Your task to perform on an android device: Go to Reddit.com Image 0: 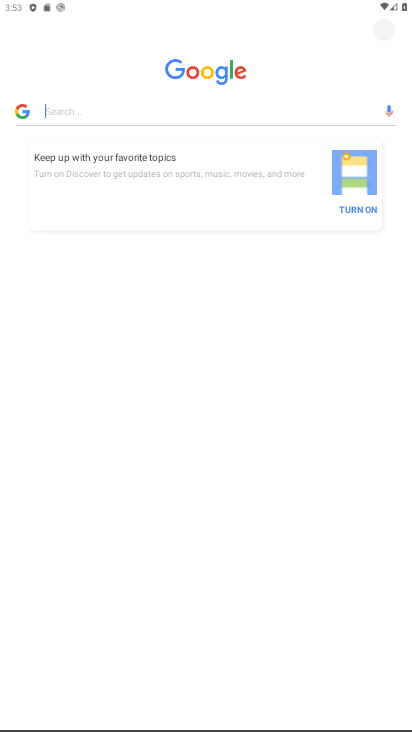
Step 0: press back button
Your task to perform on an android device: Go to Reddit.com Image 1: 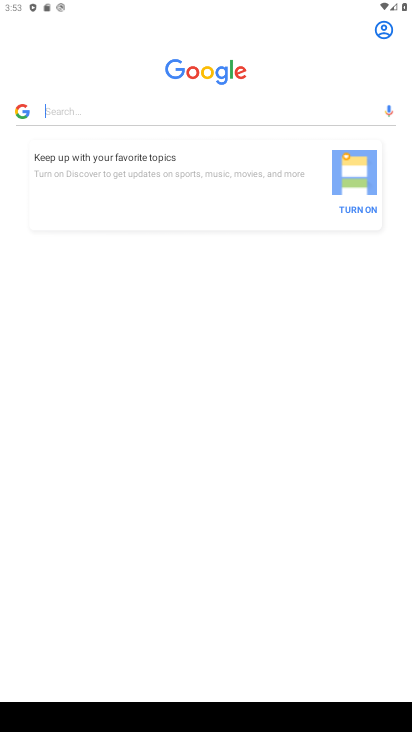
Step 1: press back button
Your task to perform on an android device: Go to Reddit.com Image 2: 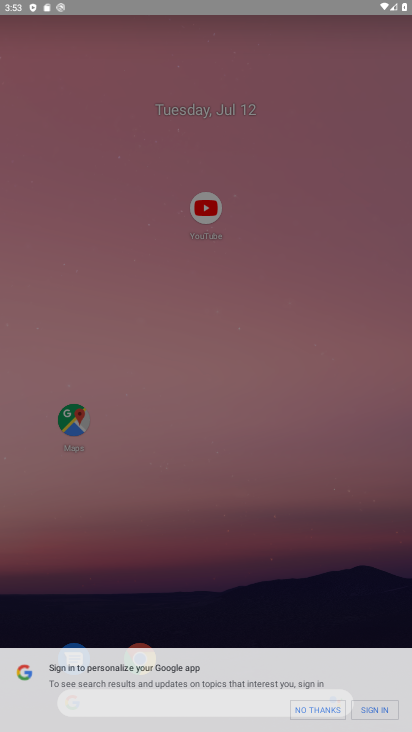
Step 2: press home button
Your task to perform on an android device: Go to Reddit.com Image 3: 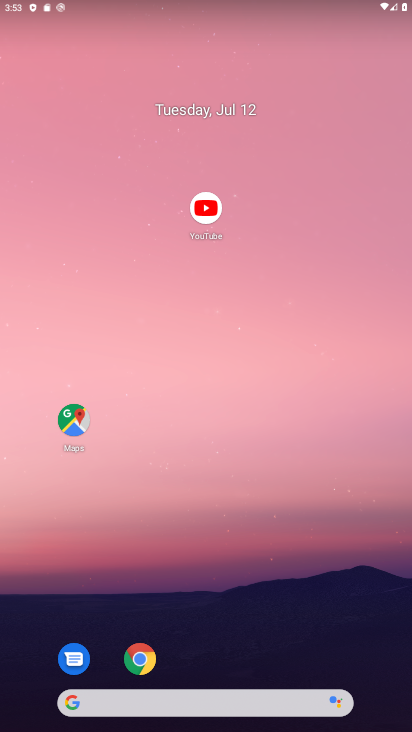
Step 3: press back button
Your task to perform on an android device: Go to Reddit.com Image 4: 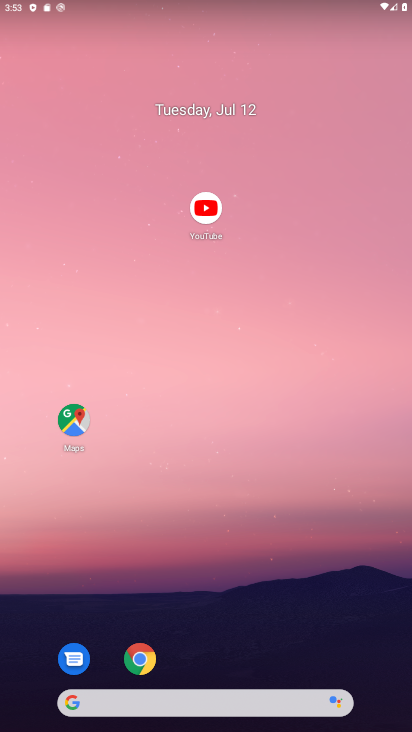
Step 4: drag from (258, 711) to (259, 153)
Your task to perform on an android device: Go to Reddit.com Image 5: 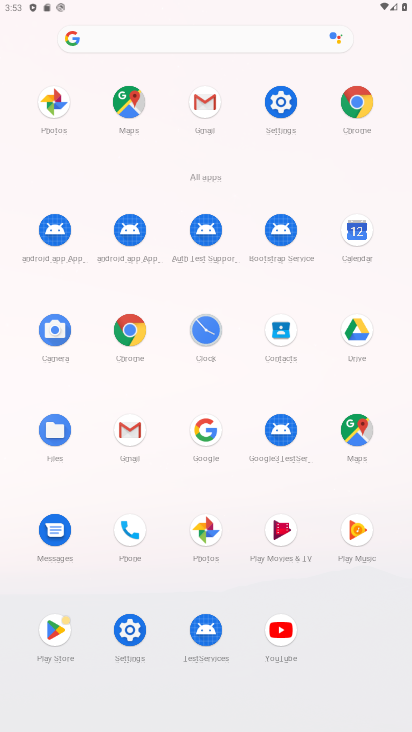
Step 5: click (365, 104)
Your task to perform on an android device: Go to Reddit.com Image 6: 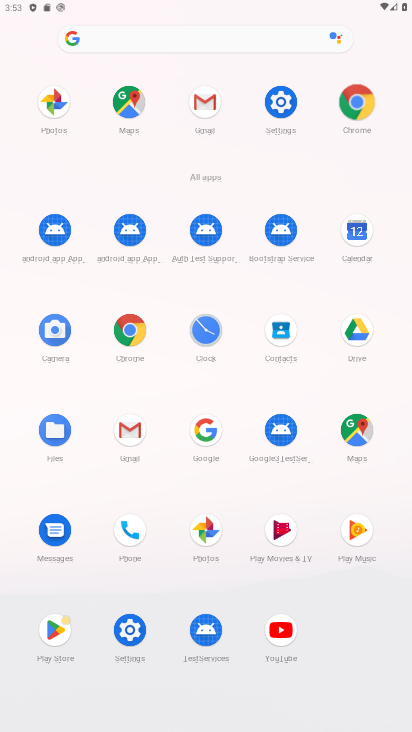
Step 6: click (355, 107)
Your task to perform on an android device: Go to Reddit.com Image 7: 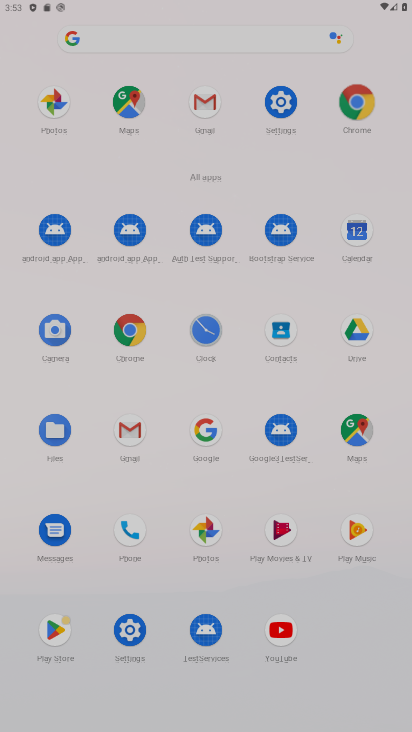
Step 7: click (355, 107)
Your task to perform on an android device: Go to Reddit.com Image 8: 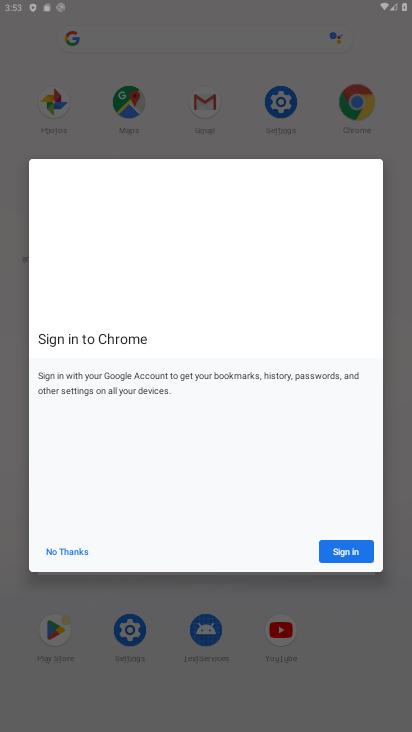
Step 8: click (355, 108)
Your task to perform on an android device: Go to Reddit.com Image 9: 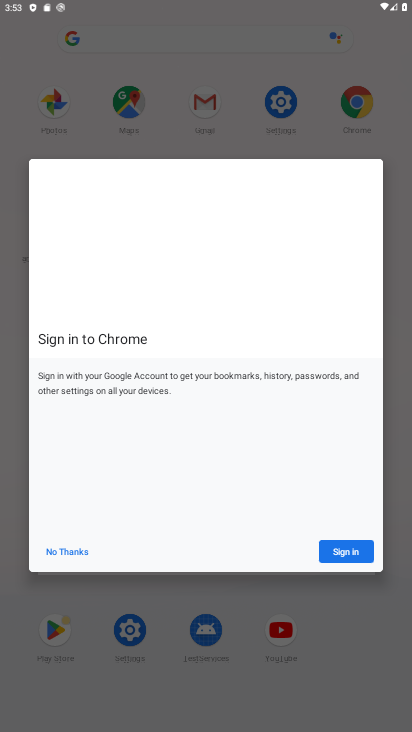
Step 9: click (355, 114)
Your task to perform on an android device: Go to Reddit.com Image 10: 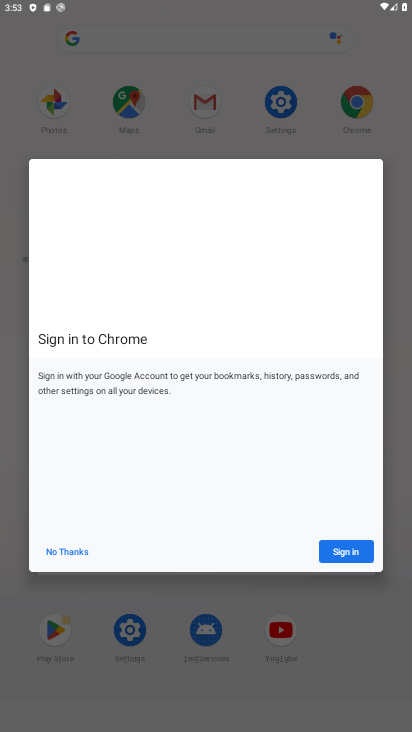
Step 10: click (78, 556)
Your task to perform on an android device: Go to Reddit.com Image 11: 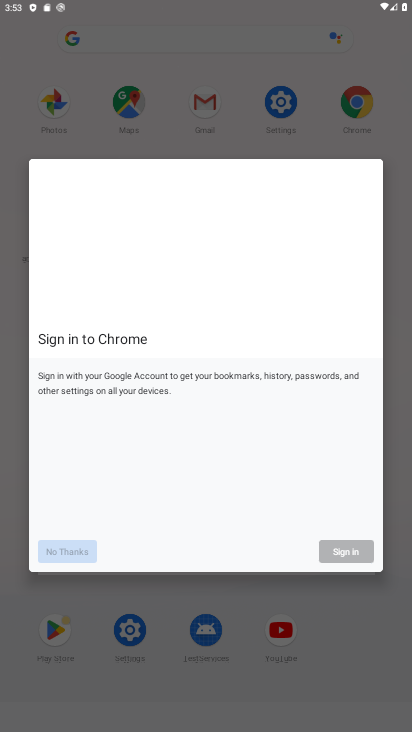
Step 11: click (68, 544)
Your task to perform on an android device: Go to Reddit.com Image 12: 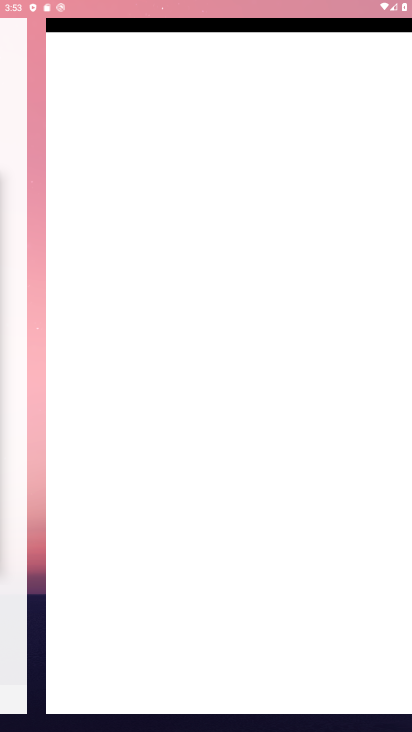
Step 12: click (69, 545)
Your task to perform on an android device: Go to Reddit.com Image 13: 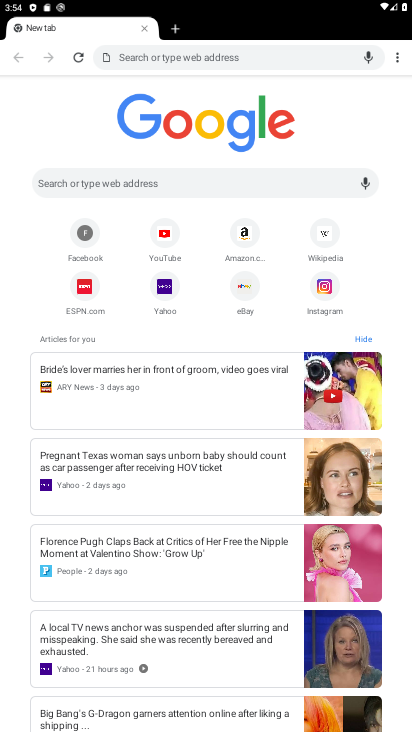
Step 13: click (111, 196)
Your task to perform on an android device: Go to Reddit.com Image 14: 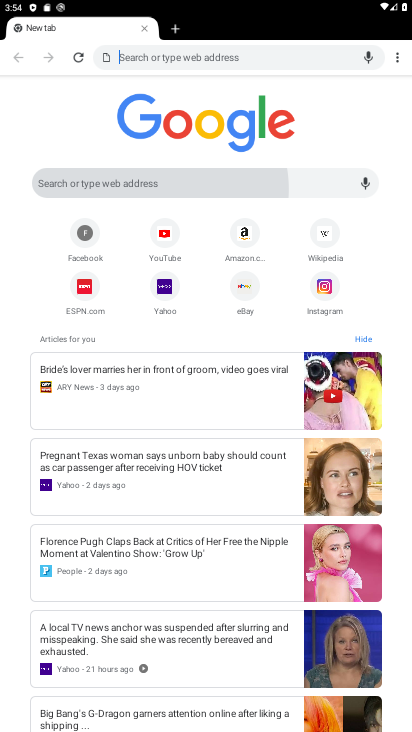
Step 14: click (80, 173)
Your task to perform on an android device: Go to Reddit.com Image 15: 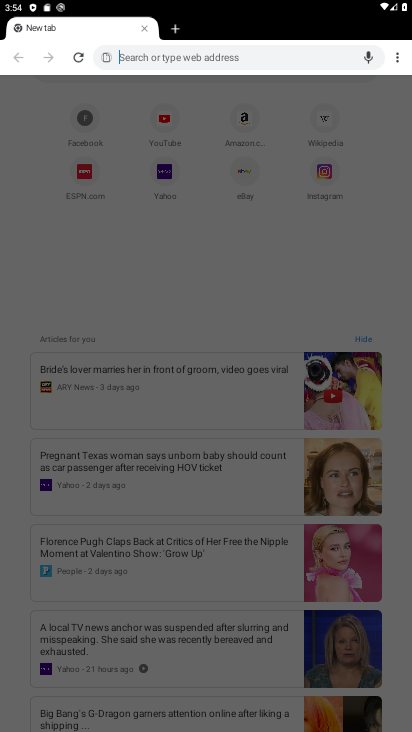
Step 15: click (81, 176)
Your task to perform on an android device: Go to Reddit.com Image 16: 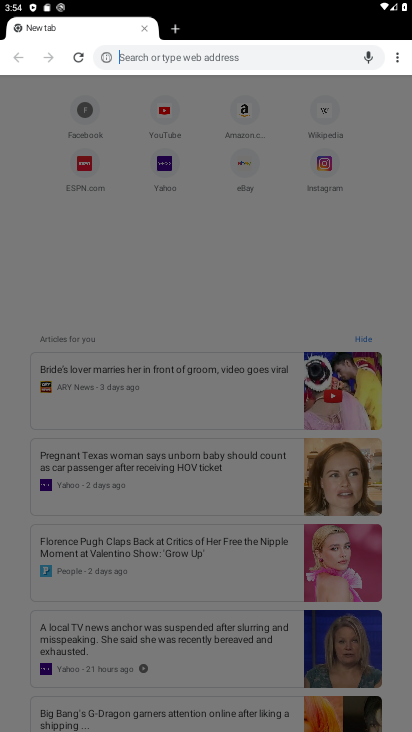
Step 16: click (83, 177)
Your task to perform on an android device: Go to Reddit.com Image 17: 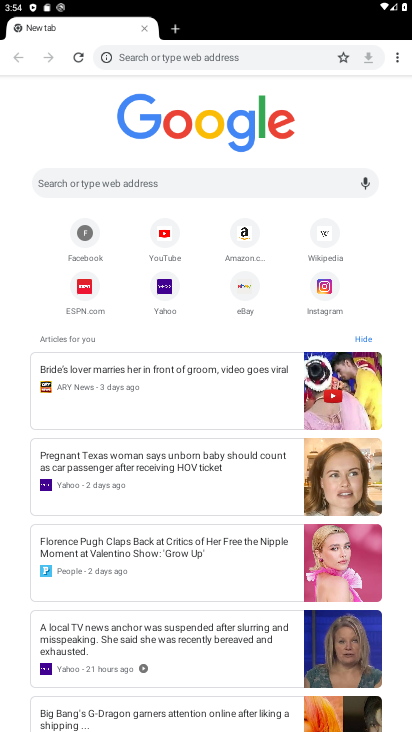
Step 17: type "reddit.com"
Your task to perform on an android device: Go to Reddit.com Image 18: 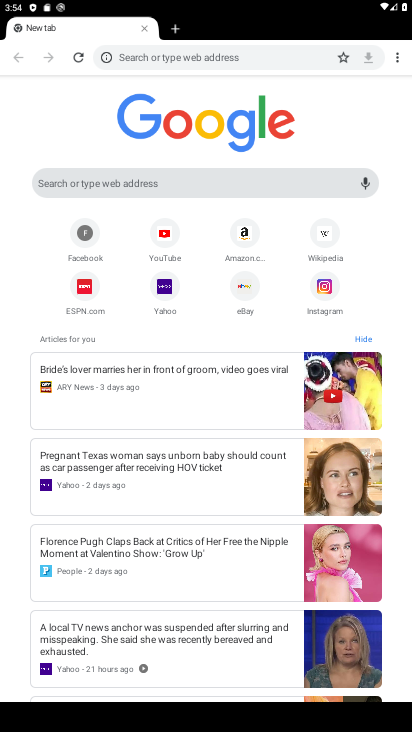
Step 18: type "reddit.com"
Your task to perform on an android device: Go to Reddit.com Image 19: 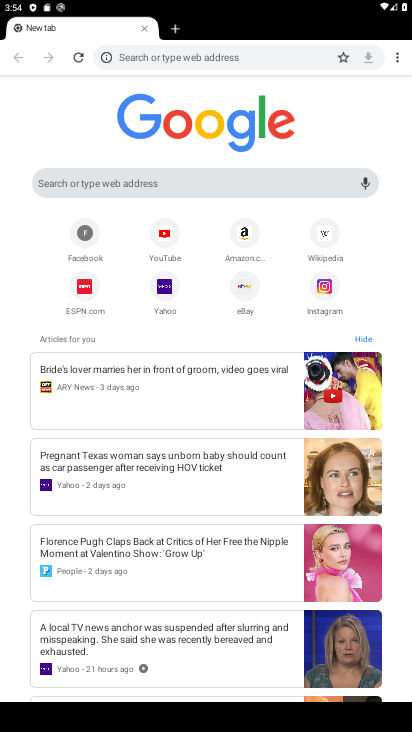
Step 19: click (130, 173)
Your task to perform on an android device: Go to Reddit.com Image 20: 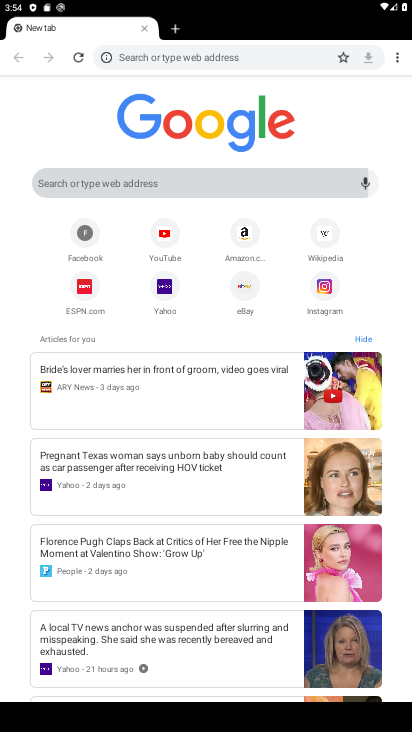
Step 20: click (130, 178)
Your task to perform on an android device: Go to Reddit.com Image 21: 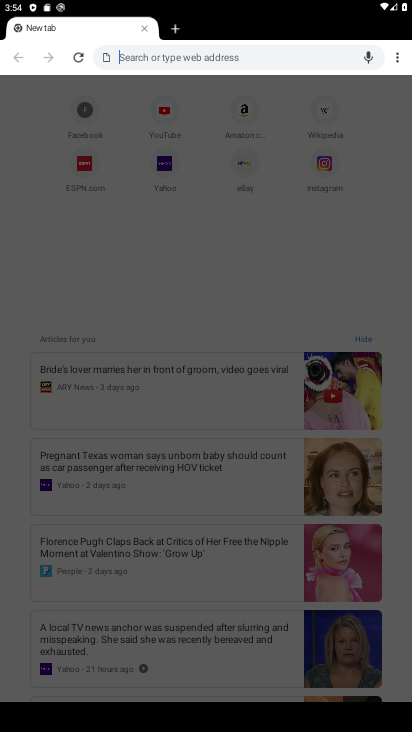
Step 21: click (131, 179)
Your task to perform on an android device: Go to Reddit.com Image 22: 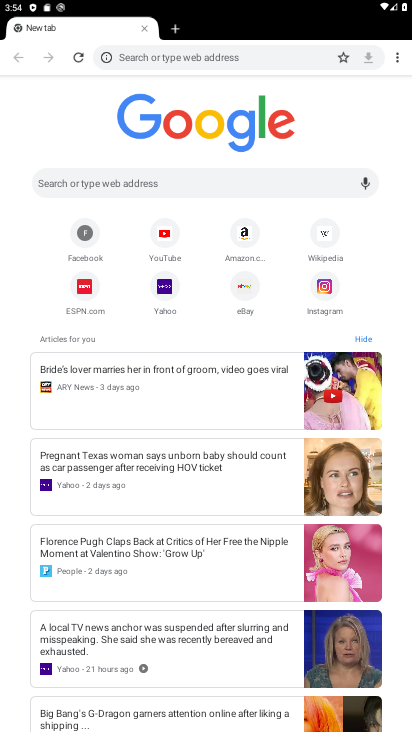
Step 22: type "reddit.com "
Your task to perform on an android device: Go to Reddit.com Image 23: 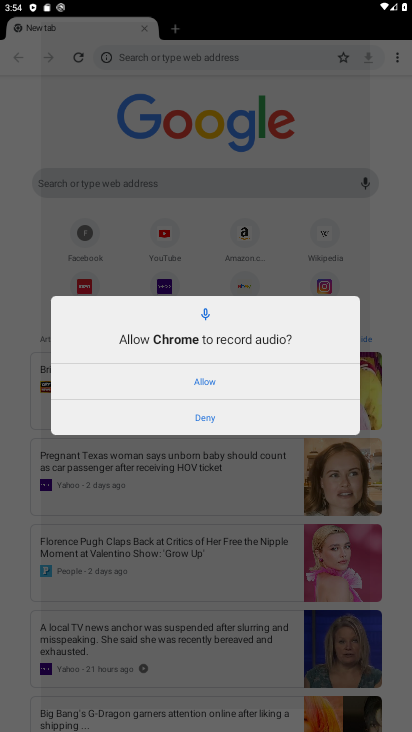
Step 23: click (210, 376)
Your task to perform on an android device: Go to Reddit.com Image 24: 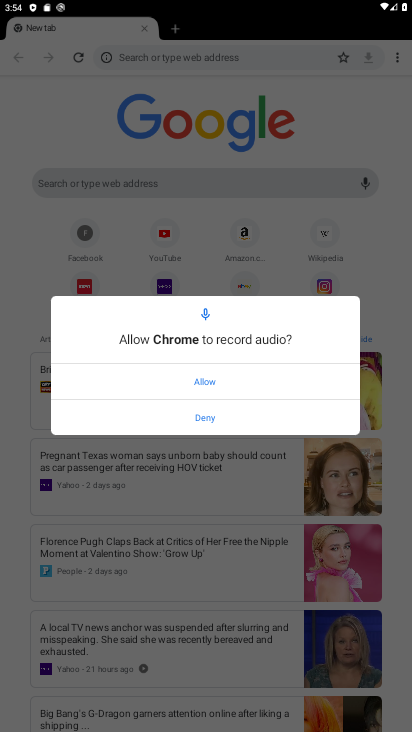
Step 24: click (210, 377)
Your task to perform on an android device: Go to Reddit.com Image 25: 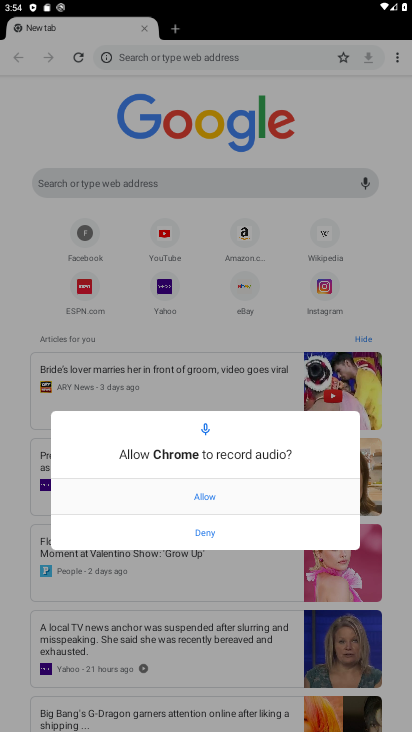
Step 25: click (211, 379)
Your task to perform on an android device: Go to Reddit.com Image 26: 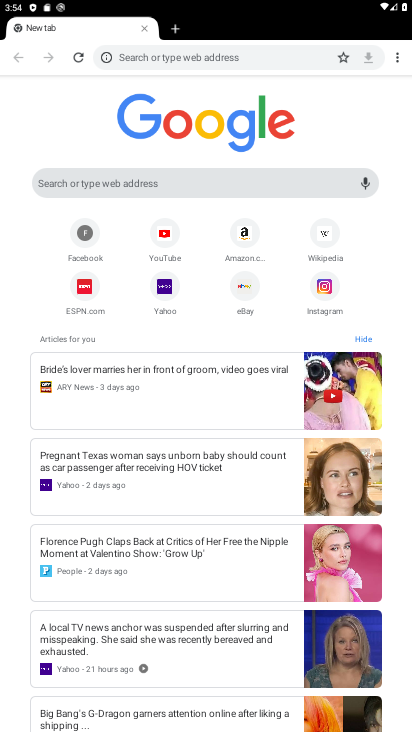
Step 26: click (211, 380)
Your task to perform on an android device: Go to Reddit.com Image 27: 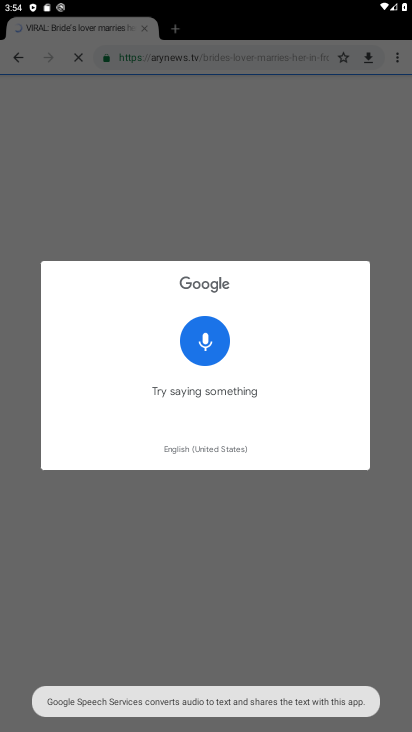
Step 27: task complete